Your task to perform on an android device: Turn off the flashlight Image 0: 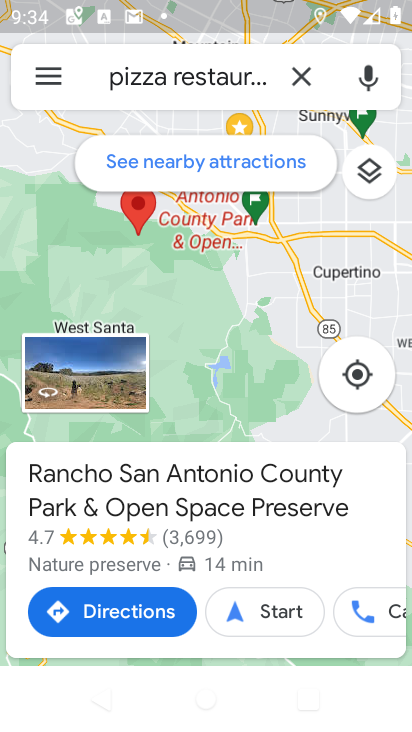
Step 0: press home button
Your task to perform on an android device: Turn off the flashlight Image 1: 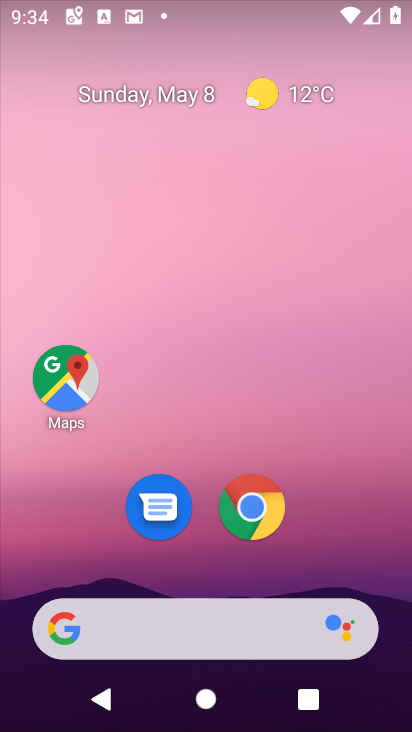
Step 1: task complete